Your task to perform on an android device: change the clock style Image 0: 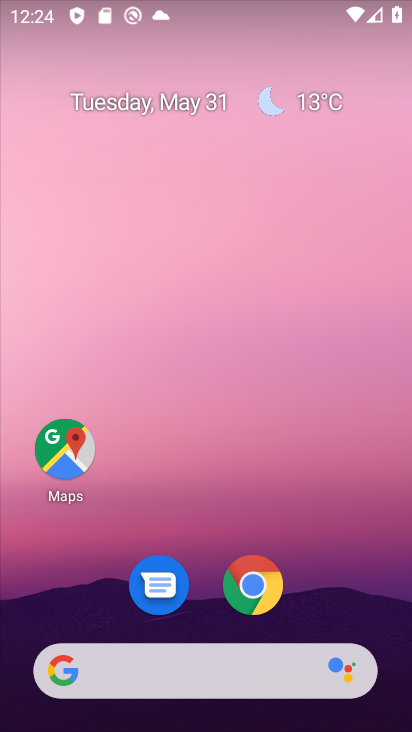
Step 0: drag from (231, 501) to (275, 28)
Your task to perform on an android device: change the clock style Image 1: 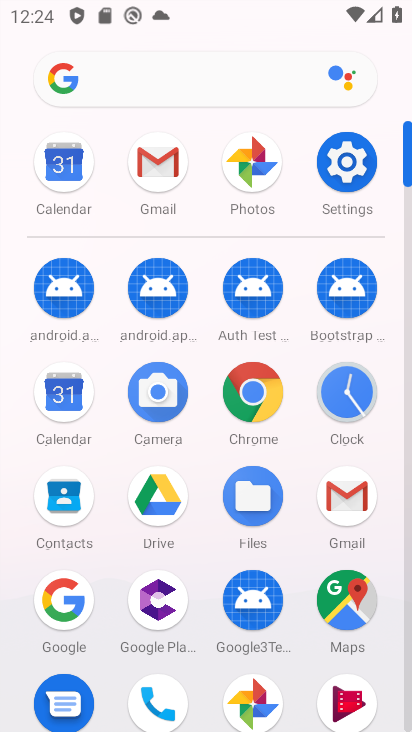
Step 1: click (336, 389)
Your task to perform on an android device: change the clock style Image 2: 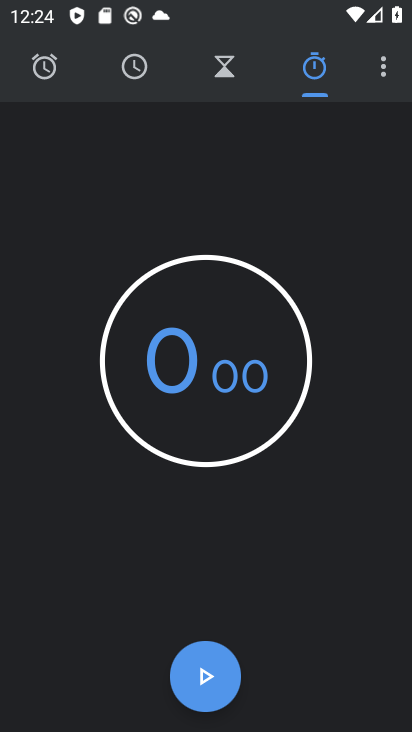
Step 2: click (388, 69)
Your task to perform on an android device: change the clock style Image 3: 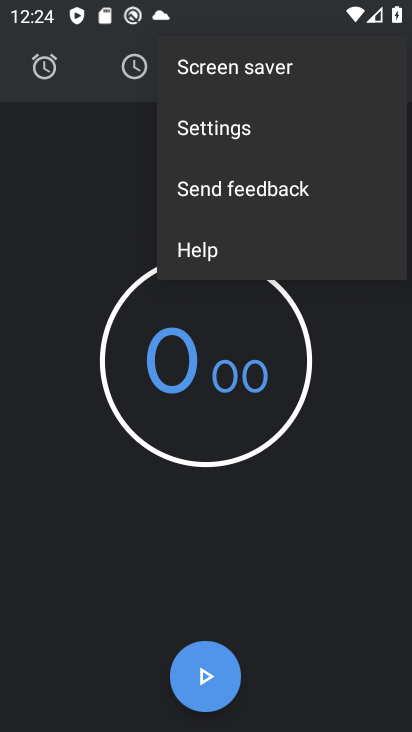
Step 3: click (303, 127)
Your task to perform on an android device: change the clock style Image 4: 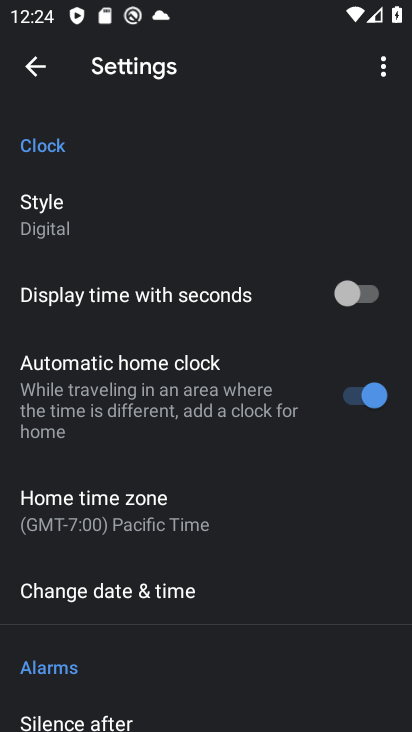
Step 4: click (98, 227)
Your task to perform on an android device: change the clock style Image 5: 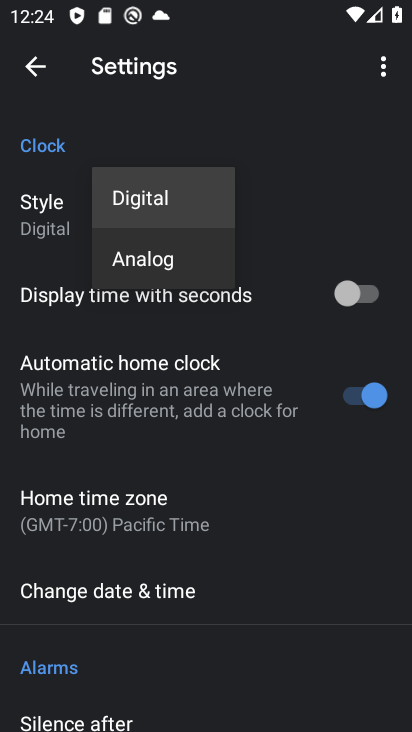
Step 5: click (128, 259)
Your task to perform on an android device: change the clock style Image 6: 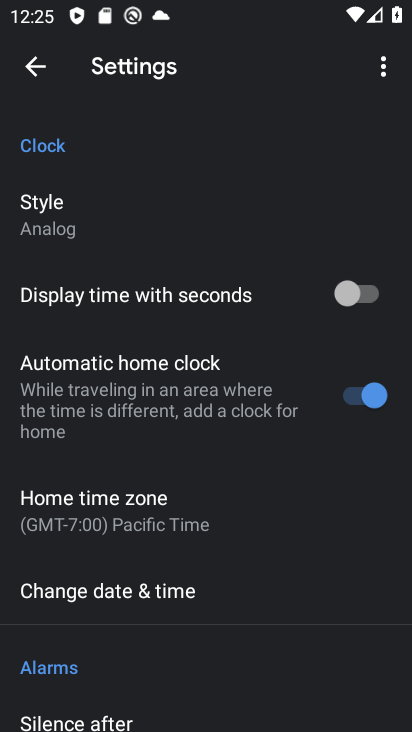
Step 6: click (43, 72)
Your task to perform on an android device: change the clock style Image 7: 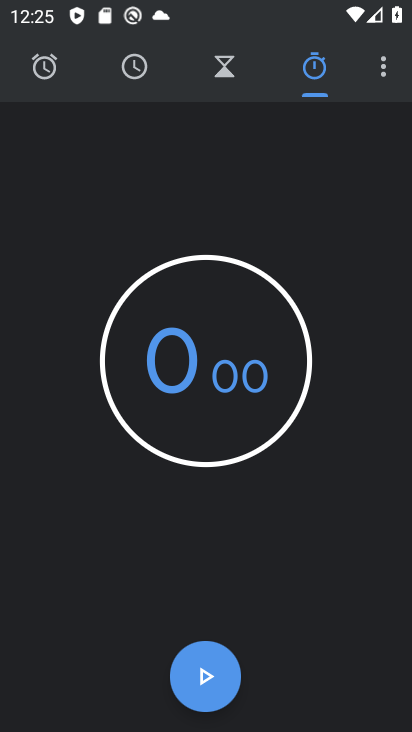
Step 7: click (147, 65)
Your task to perform on an android device: change the clock style Image 8: 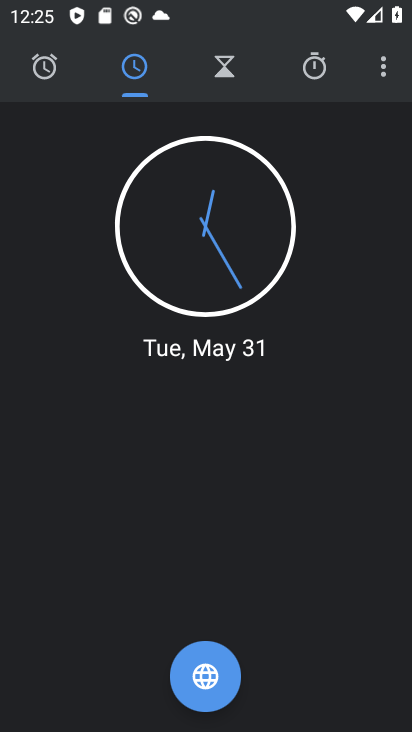
Step 8: task complete